Your task to perform on an android device: Go to Android settings Image 0: 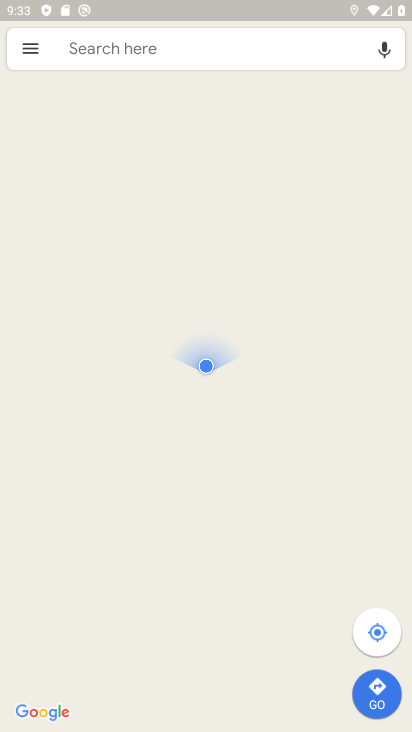
Step 0: press home button
Your task to perform on an android device: Go to Android settings Image 1: 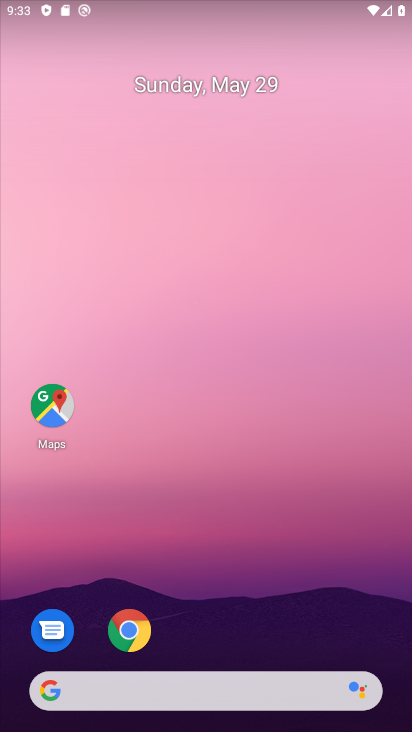
Step 1: drag from (182, 647) to (313, 112)
Your task to perform on an android device: Go to Android settings Image 2: 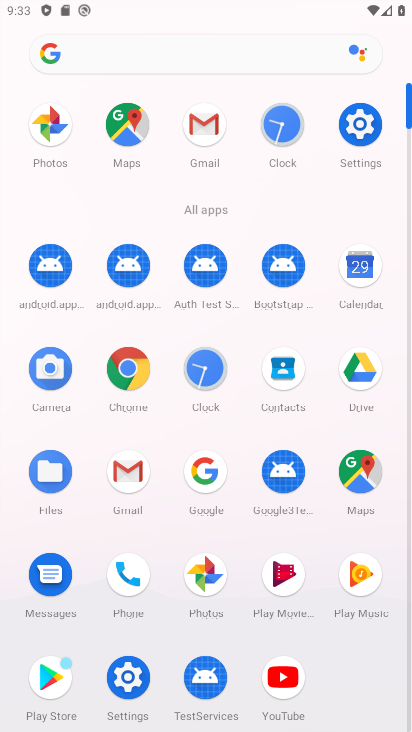
Step 2: drag from (178, 607) to (200, 426)
Your task to perform on an android device: Go to Android settings Image 3: 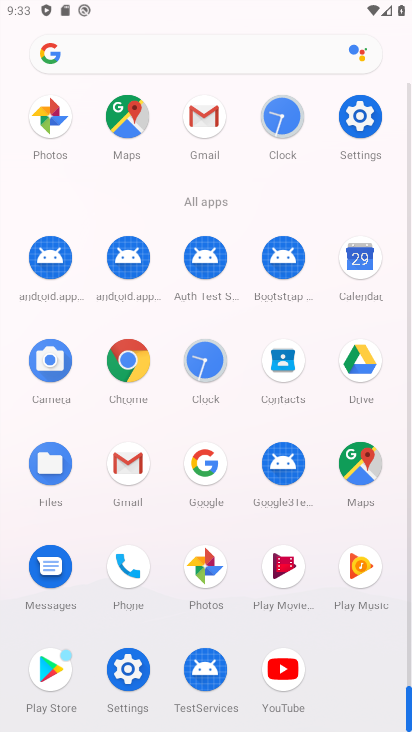
Step 3: click (131, 664)
Your task to perform on an android device: Go to Android settings Image 4: 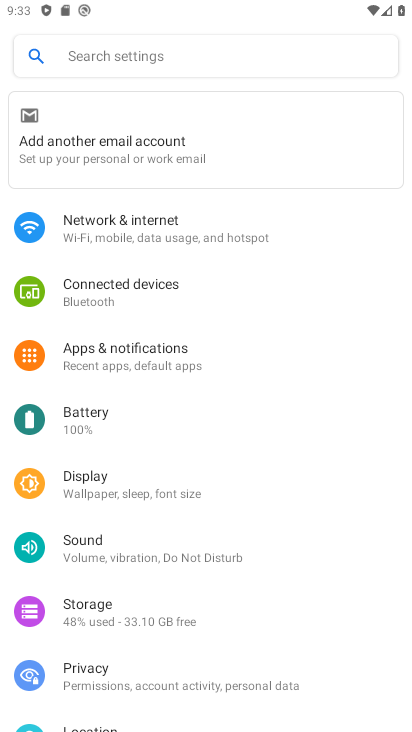
Step 4: task complete